Your task to perform on an android device: What's the weather? Image 0: 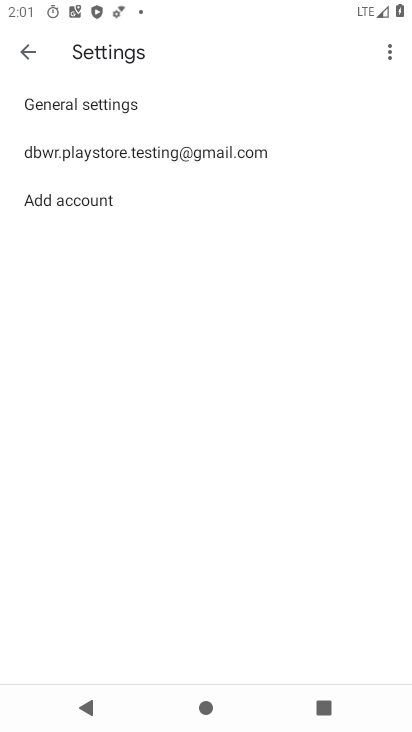
Step 0: press home button
Your task to perform on an android device: What's the weather? Image 1: 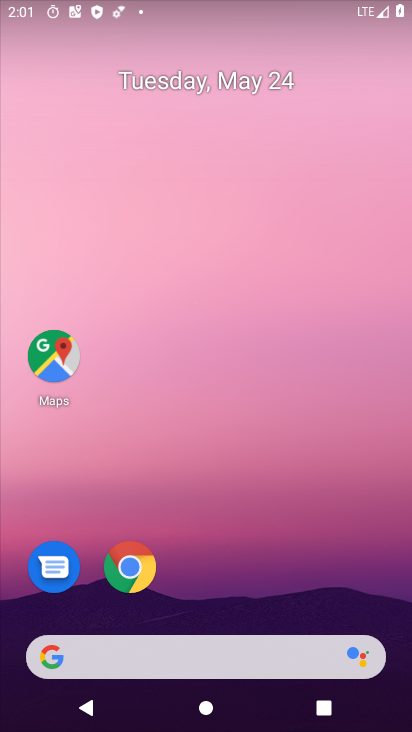
Step 1: drag from (219, 588) to (280, 2)
Your task to perform on an android device: What's the weather? Image 2: 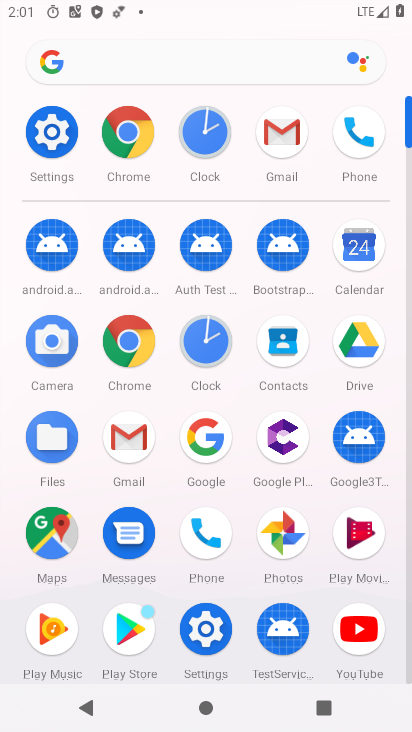
Step 2: click (146, 60)
Your task to perform on an android device: What's the weather? Image 3: 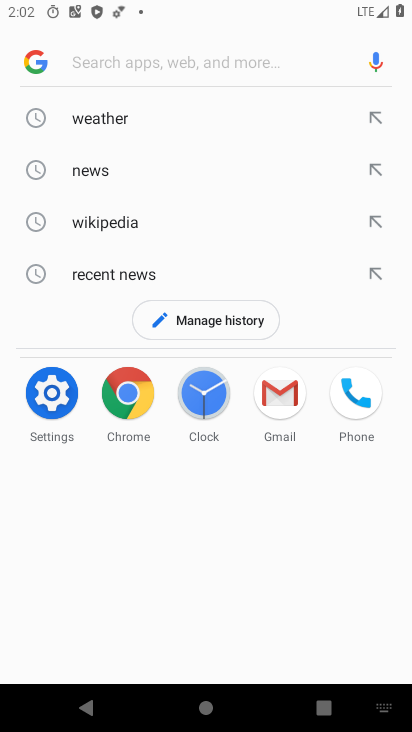
Step 3: click (122, 129)
Your task to perform on an android device: What's the weather? Image 4: 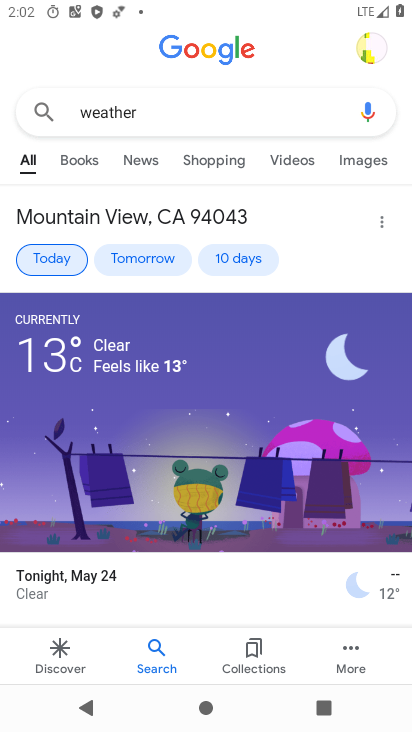
Step 4: task complete